Your task to perform on an android device: turn on showing notifications on the lock screen Image 0: 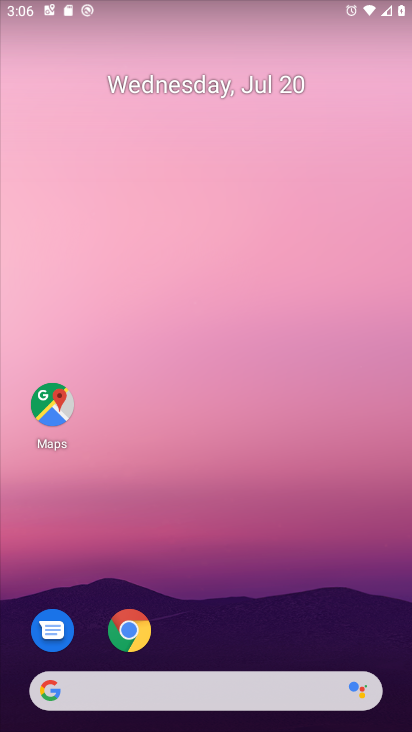
Step 0: drag from (225, 629) to (284, 226)
Your task to perform on an android device: turn on showing notifications on the lock screen Image 1: 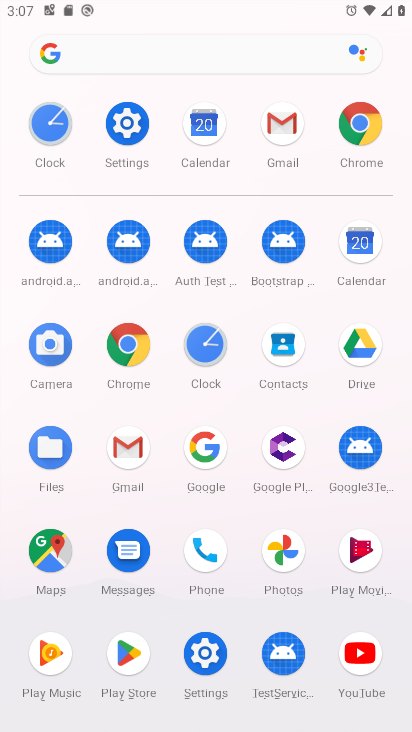
Step 1: click (203, 657)
Your task to perform on an android device: turn on showing notifications on the lock screen Image 2: 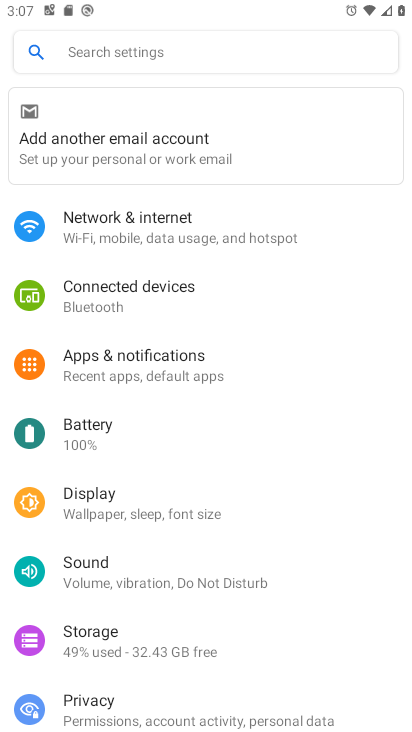
Step 2: click (169, 372)
Your task to perform on an android device: turn on showing notifications on the lock screen Image 3: 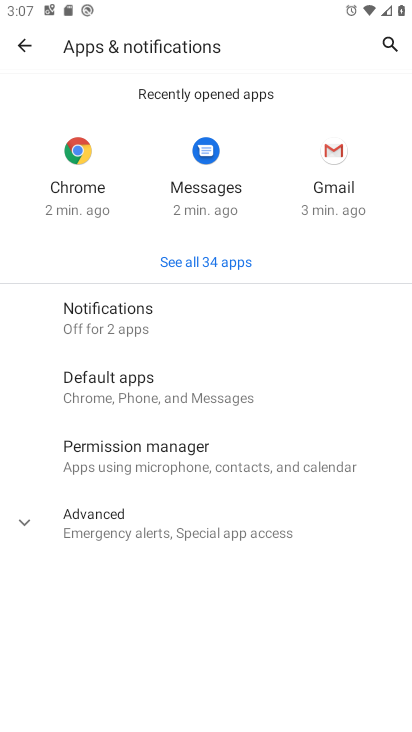
Step 3: click (156, 328)
Your task to perform on an android device: turn on showing notifications on the lock screen Image 4: 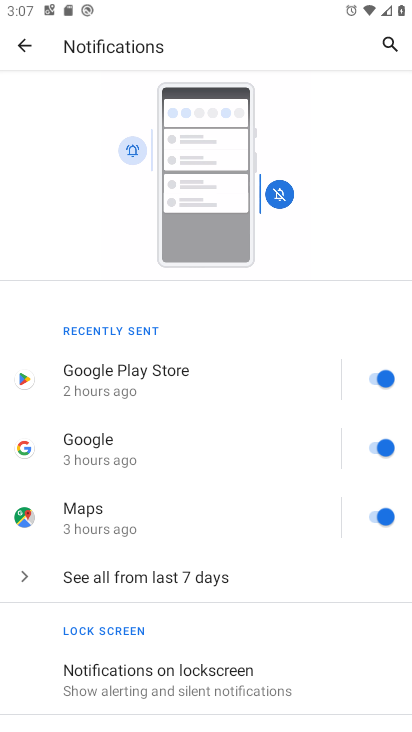
Step 4: drag from (114, 583) to (150, 349)
Your task to perform on an android device: turn on showing notifications on the lock screen Image 5: 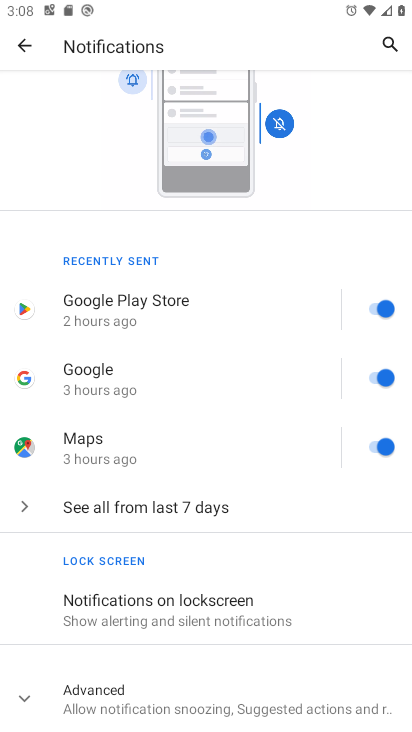
Step 5: drag from (120, 606) to (144, 464)
Your task to perform on an android device: turn on showing notifications on the lock screen Image 6: 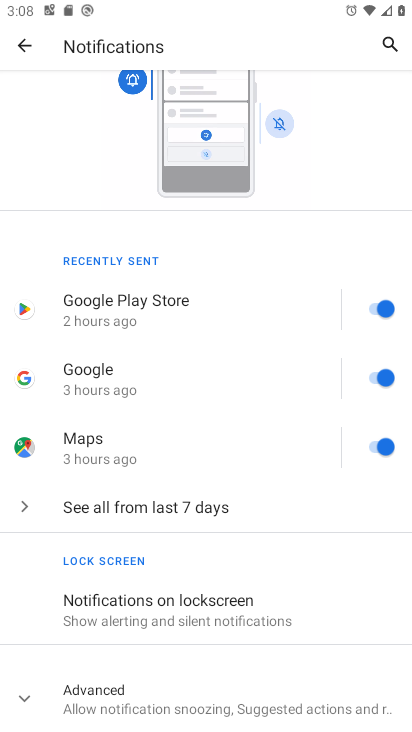
Step 6: click (195, 609)
Your task to perform on an android device: turn on showing notifications on the lock screen Image 7: 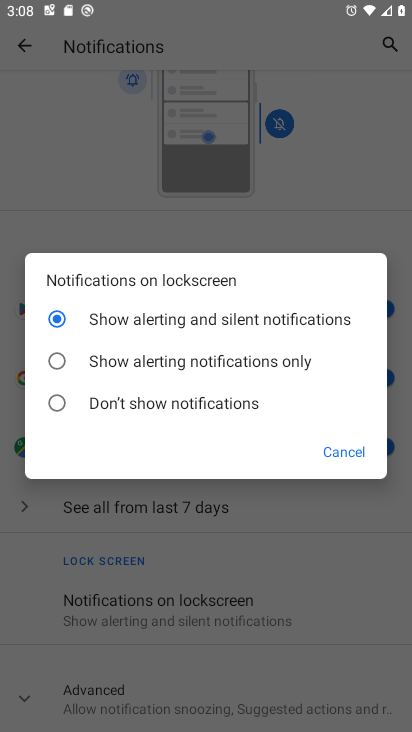
Step 7: task complete